Your task to perform on an android device: Open Reddit.com Image 0: 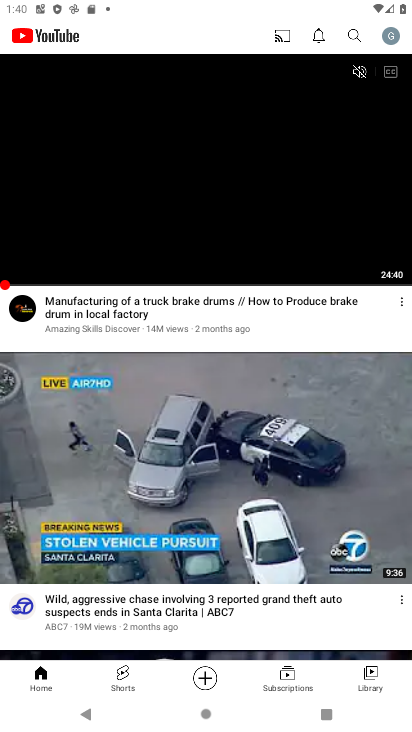
Step 0: press home button
Your task to perform on an android device: Open Reddit.com Image 1: 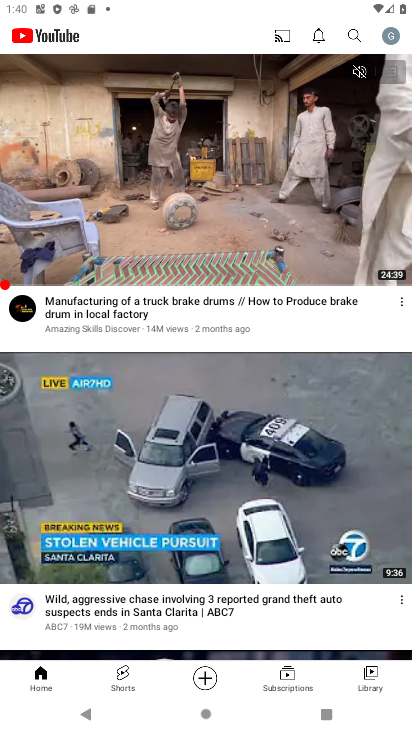
Step 1: drag from (300, 179) to (253, 34)
Your task to perform on an android device: Open Reddit.com Image 2: 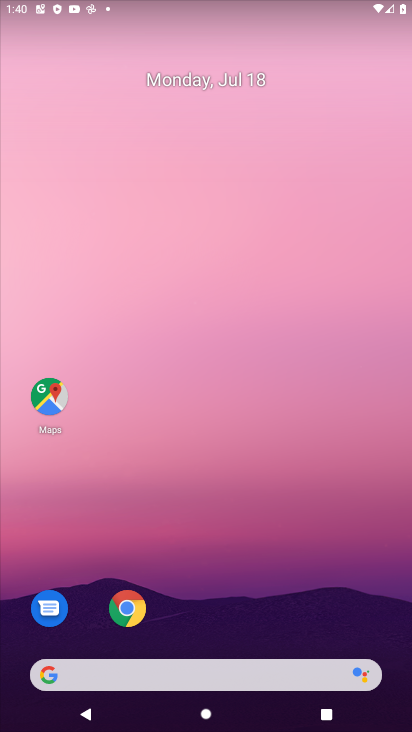
Step 2: drag from (207, 145) to (152, 9)
Your task to perform on an android device: Open Reddit.com Image 3: 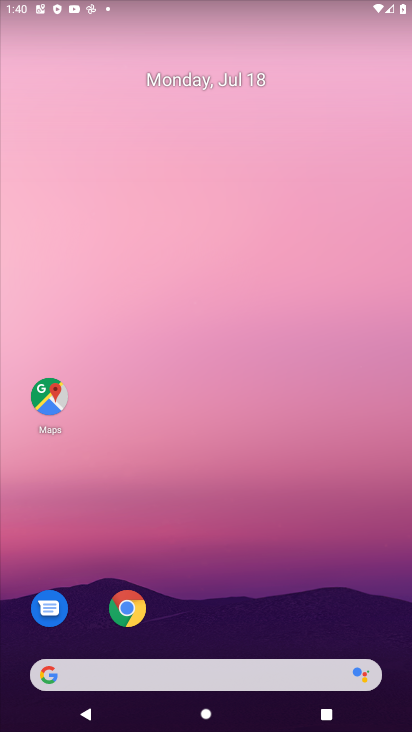
Step 3: drag from (381, 562) to (294, 18)
Your task to perform on an android device: Open Reddit.com Image 4: 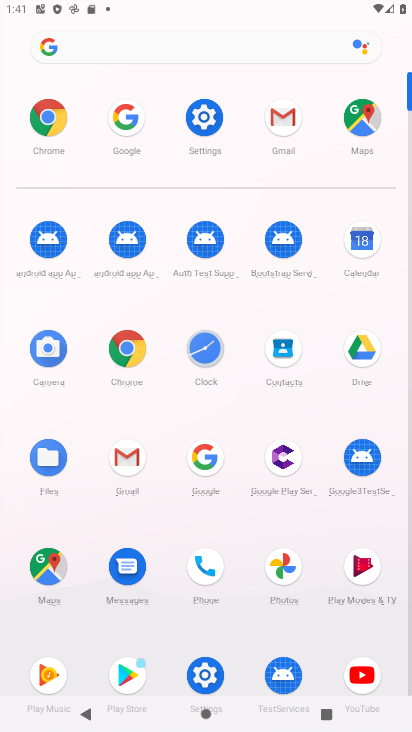
Step 4: click (197, 478)
Your task to perform on an android device: Open Reddit.com Image 5: 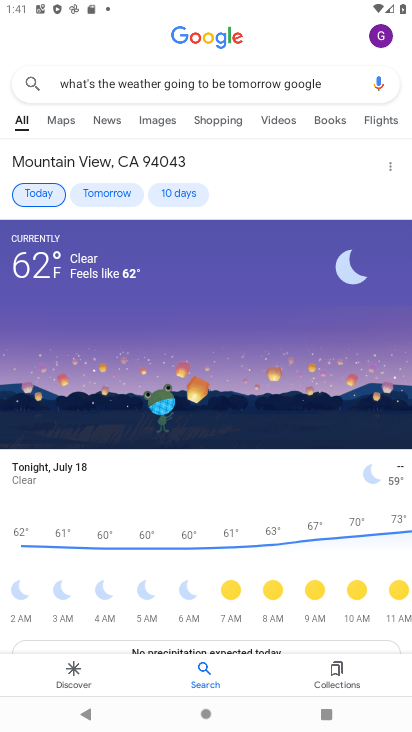
Step 5: press back button
Your task to perform on an android device: Open Reddit.com Image 6: 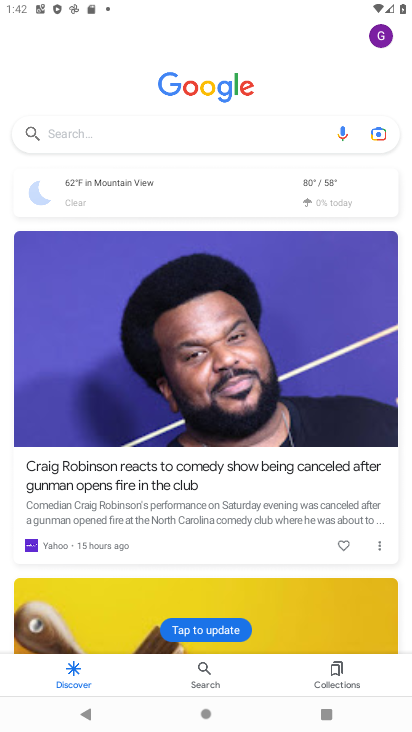
Step 6: click (124, 128)
Your task to perform on an android device: Open Reddit.com Image 7: 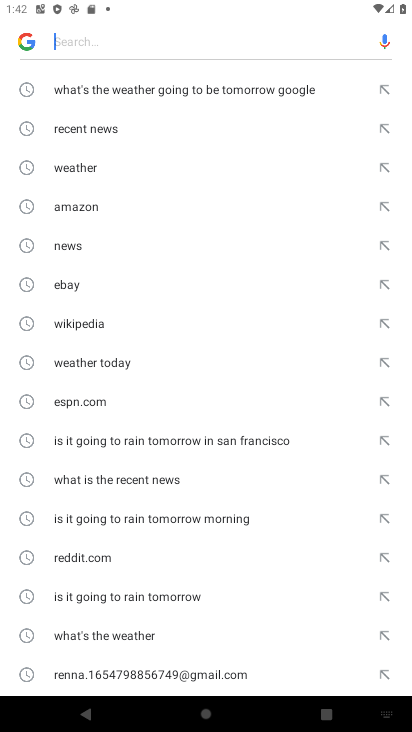
Step 7: click (85, 560)
Your task to perform on an android device: Open Reddit.com Image 8: 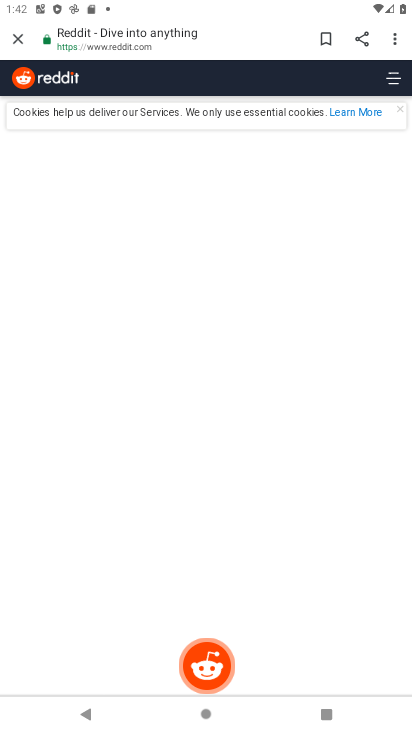
Step 8: task complete